Your task to perform on an android device: turn on priority inbox in the gmail app Image 0: 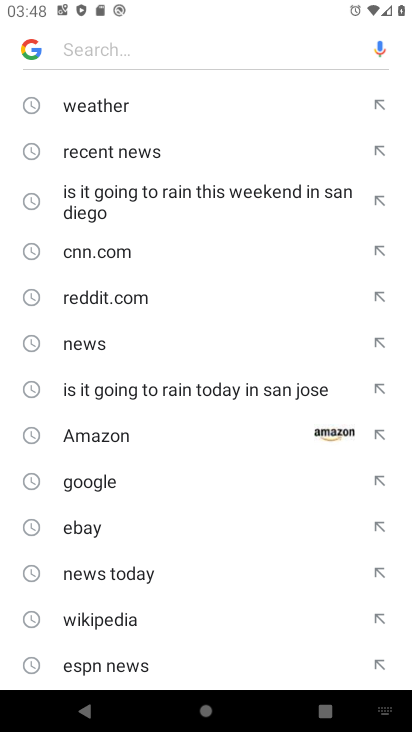
Step 0: press home button
Your task to perform on an android device: turn on priority inbox in the gmail app Image 1: 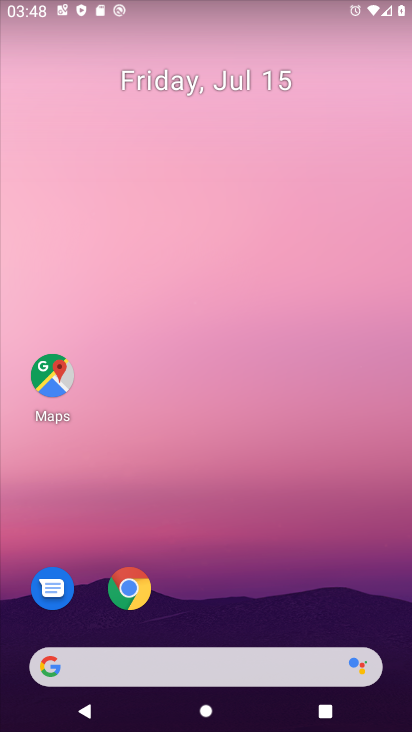
Step 1: drag from (189, 660) to (136, 257)
Your task to perform on an android device: turn on priority inbox in the gmail app Image 2: 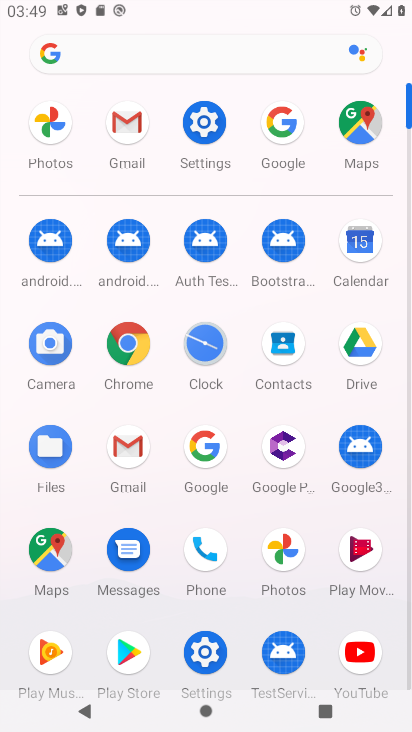
Step 2: click (125, 119)
Your task to perform on an android device: turn on priority inbox in the gmail app Image 3: 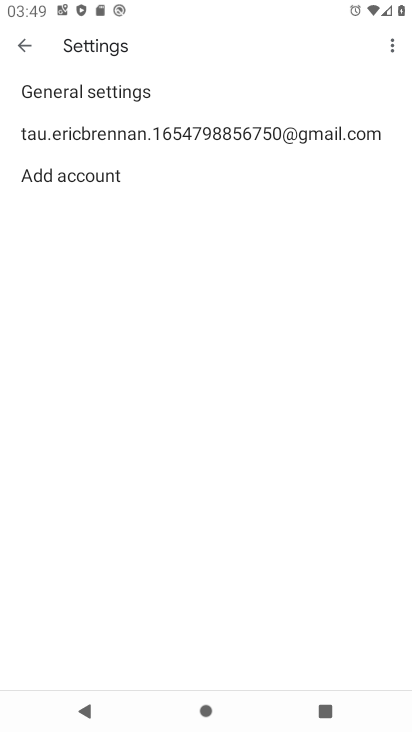
Step 3: click (126, 133)
Your task to perform on an android device: turn on priority inbox in the gmail app Image 4: 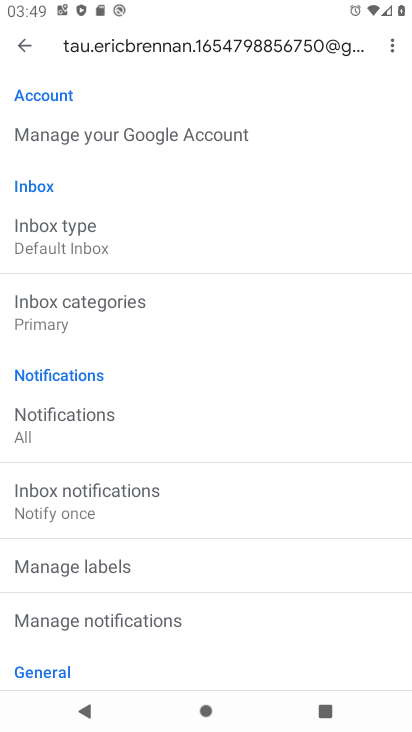
Step 4: click (83, 241)
Your task to perform on an android device: turn on priority inbox in the gmail app Image 5: 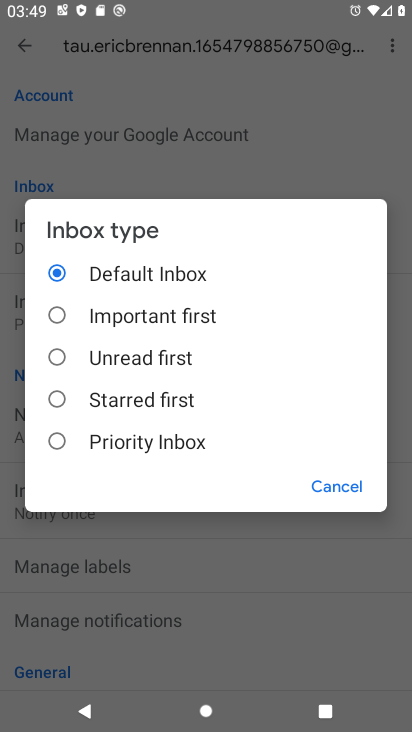
Step 5: click (57, 442)
Your task to perform on an android device: turn on priority inbox in the gmail app Image 6: 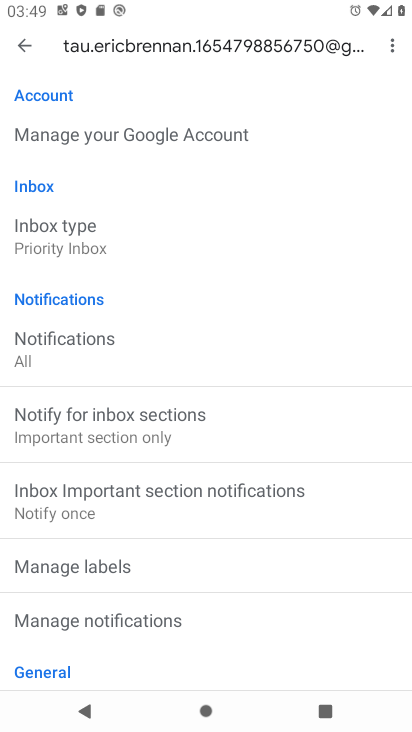
Step 6: task complete